Your task to perform on an android device: set default search engine in the chrome app Image 0: 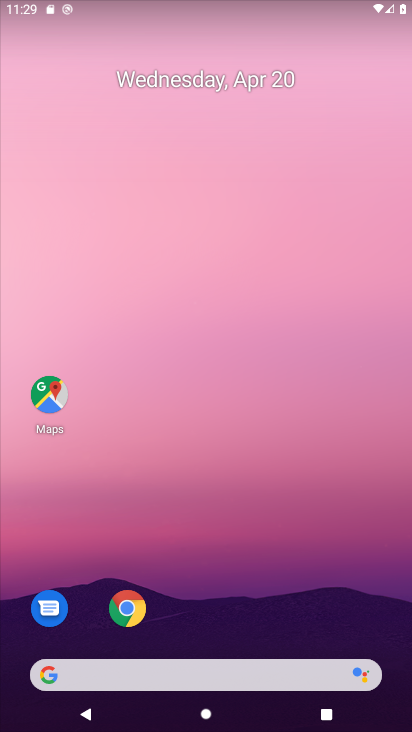
Step 0: drag from (188, 518) to (40, 67)
Your task to perform on an android device: set default search engine in the chrome app Image 1: 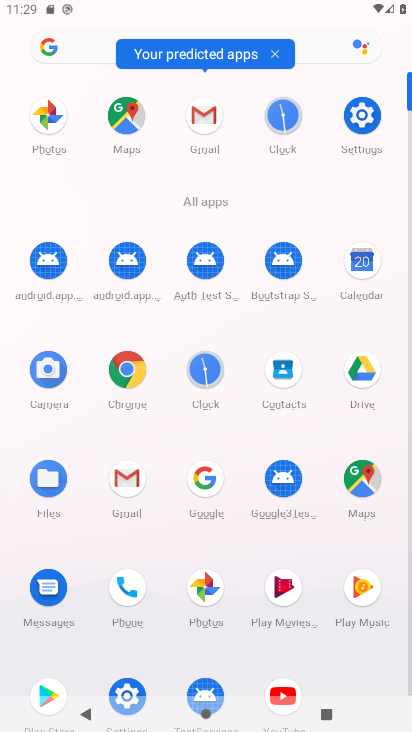
Step 1: click (141, 375)
Your task to perform on an android device: set default search engine in the chrome app Image 2: 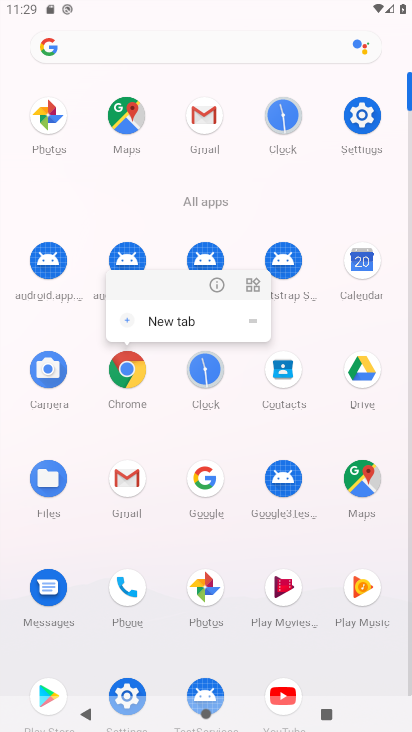
Step 2: click (127, 364)
Your task to perform on an android device: set default search engine in the chrome app Image 3: 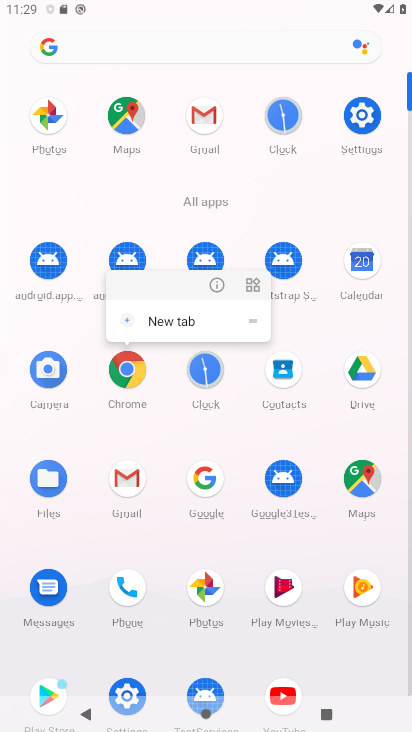
Step 3: click (127, 364)
Your task to perform on an android device: set default search engine in the chrome app Image 4: 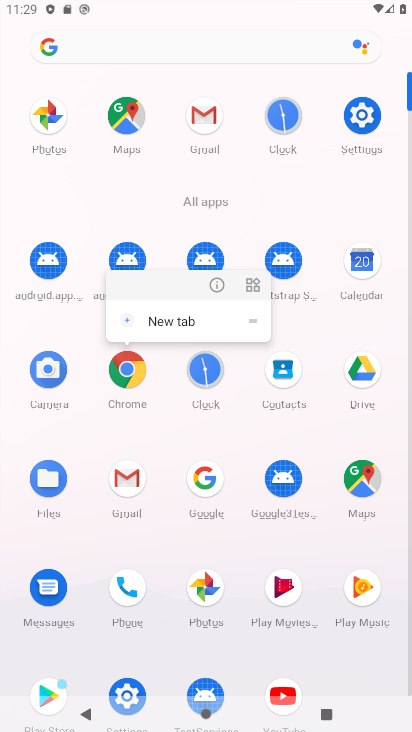
Step 4: click (127, 364)
Your task to perform on an android device: set default search engine in the chrome app Image 5: 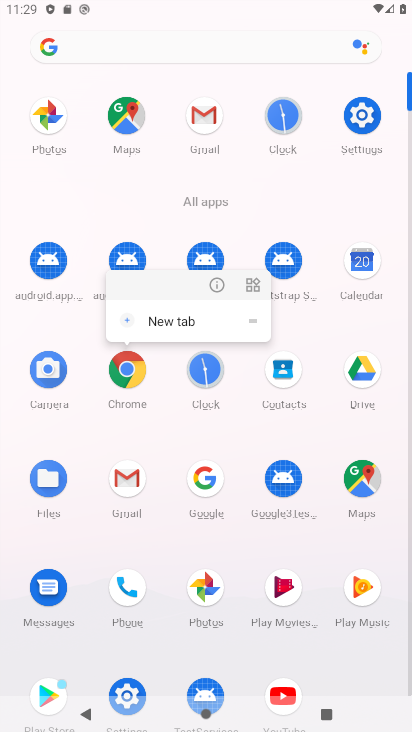
Step 5: click (127, 364)
Your task to perform on an android device: set default search engine in the chrome app Image 6: 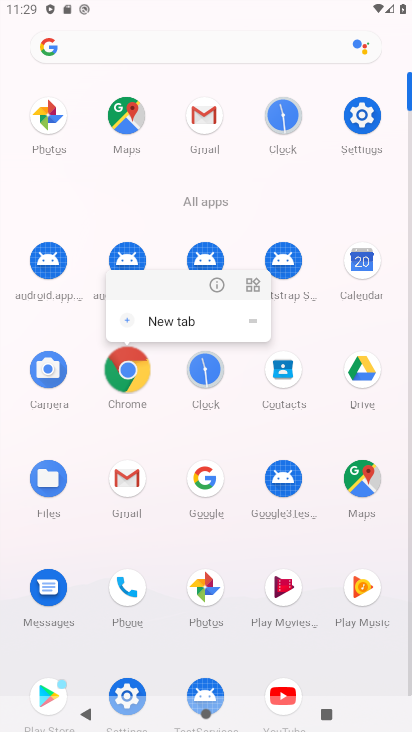
Step 6: click (127, 364)
Your task to perform on an android device: set default search engine in the chrome app Image 7: 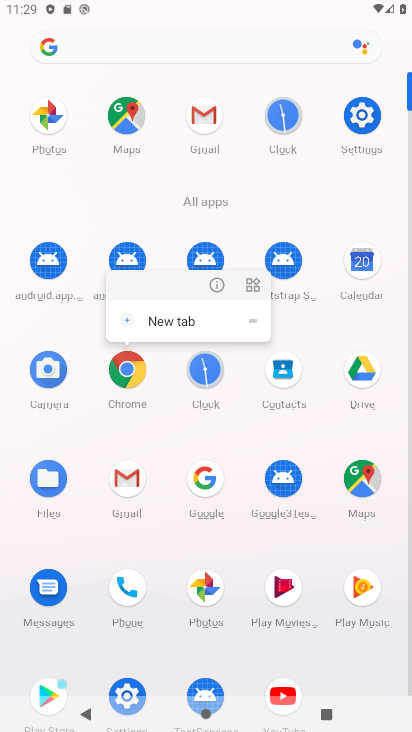
Step 7: click (127, 364)
Your task to perform on an android device: set default search engine in the chrome app Image 8: 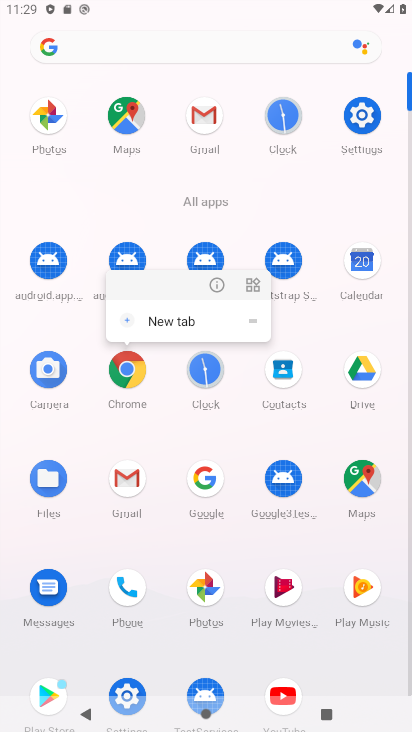
Step 8: click (127, 364)
Your task to perform on an android device: set default search engine in the chrome app Image 9: 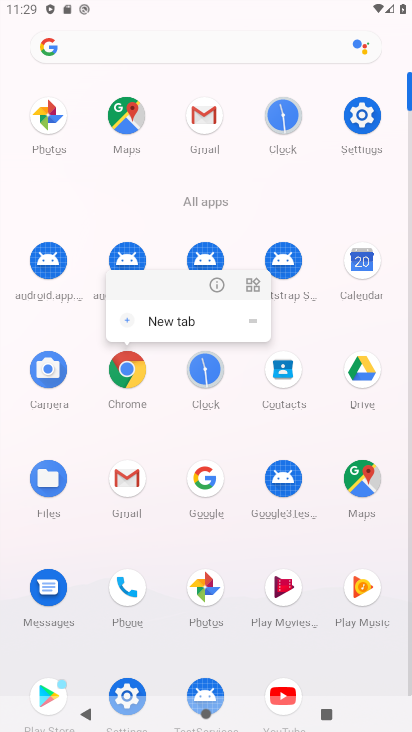
Step 9: click (127, 364)
Your task to perform on an android device: set default search engine in the chrome app Image 10: 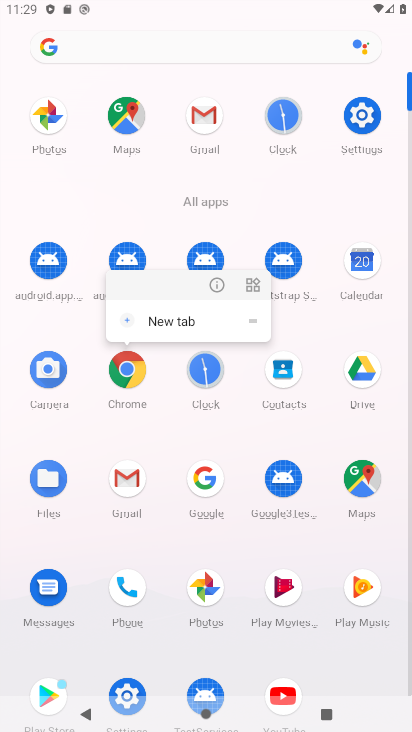
Step 10: click (127, 364)
Your task to perform on an android device: set default search engine in the chrome app Image 11: 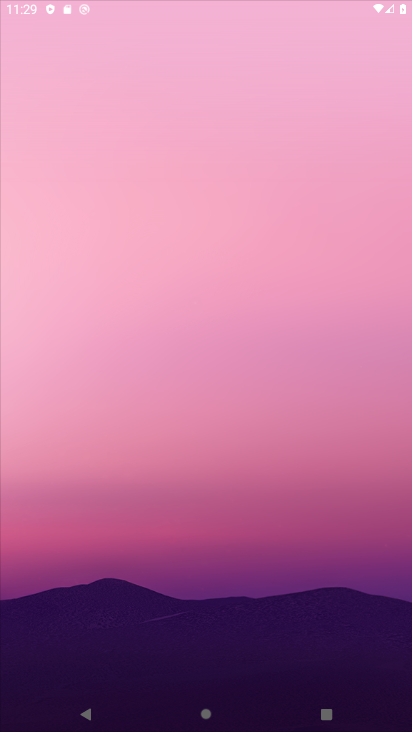
Step 11: click (127, 364)
Your task to perform on an android device: set default search engine in the chrome app Image 12: 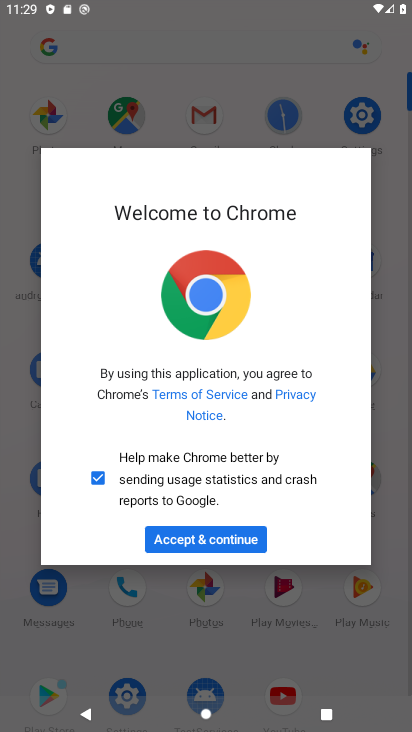
Step 12: click (223, 541)
Your task to perform on an android device: set default search engine in the chrome app Image 13: 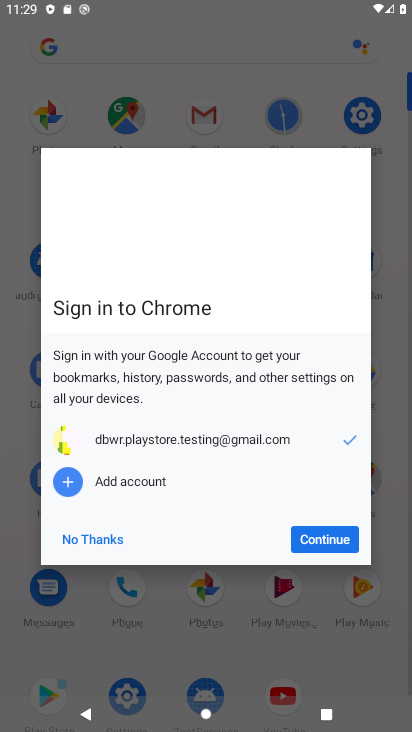
Step 13: click (94, 550)
Your task to perform on an android device: set default search engine in the chrome app Image 14: 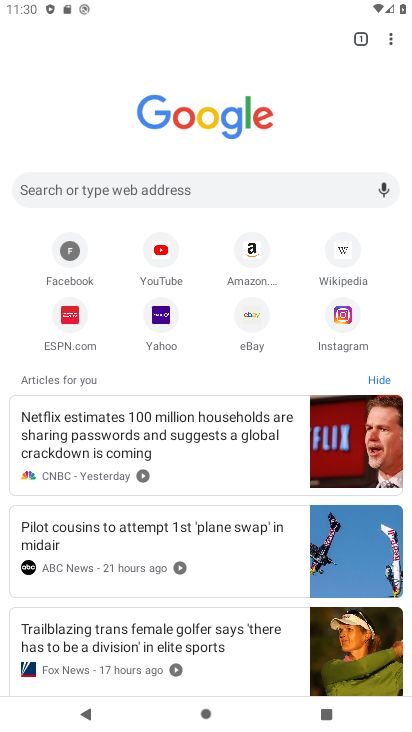
Step 14: drag from (389, 48) to (272, 320)
Your task to perform on an android device: set default search engine in the chrome app Image 15: 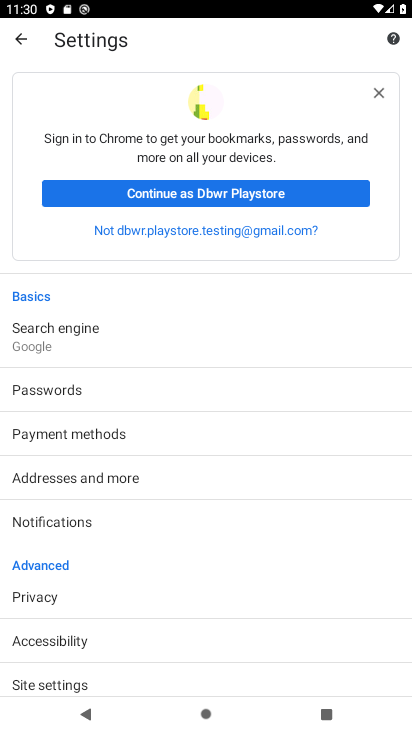
Step 15: click (86, 341)
Your task to perform on an android device: set default search engine in the chrome app Image 16: 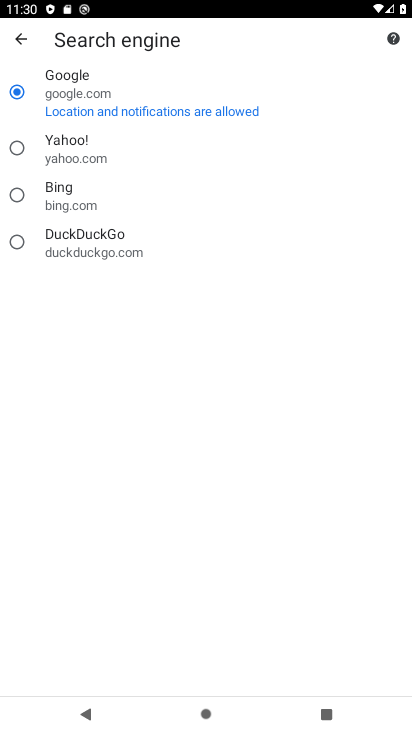
Step 16: task complete